Your task to perform on an android device: refresh tabs in the chrome app Image 0: 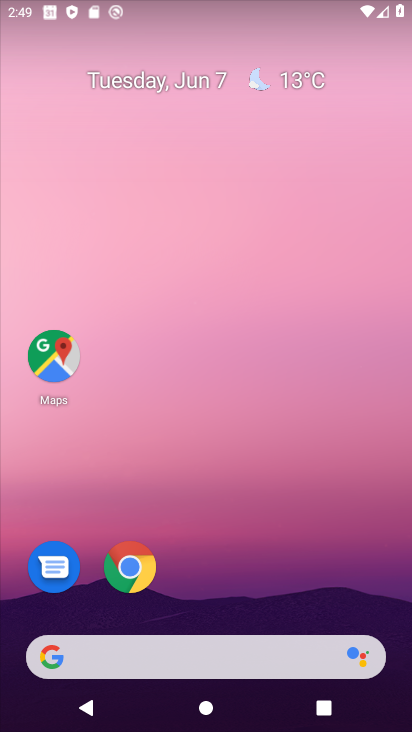
Step 0: click (133, 573)
Your task to perform on an android device: refresh tabs in the chrome app Image 1: 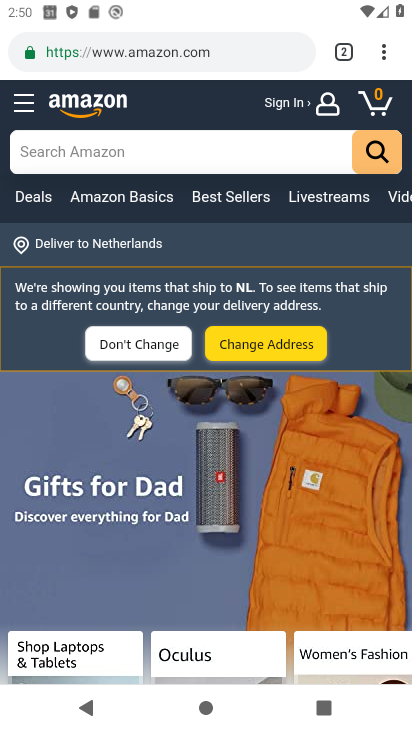
Step 1: click (383, 48)
Your task to perform on an android device: refresh tabs in the chrome app Image 2: 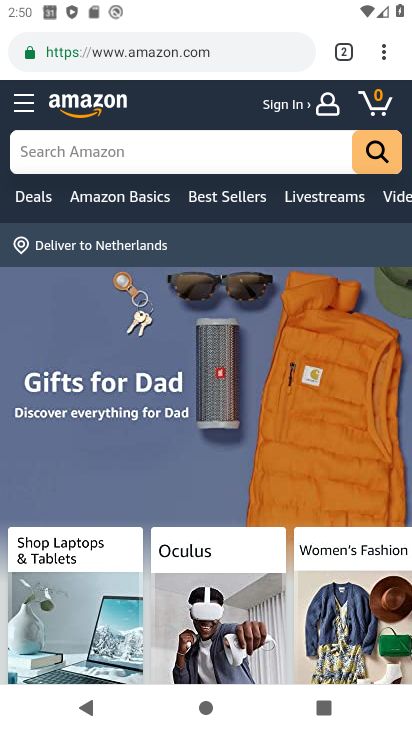
Step 2: task complete